Your task to perform on an android device: Show me productivity apps on the Play Store Image 0: 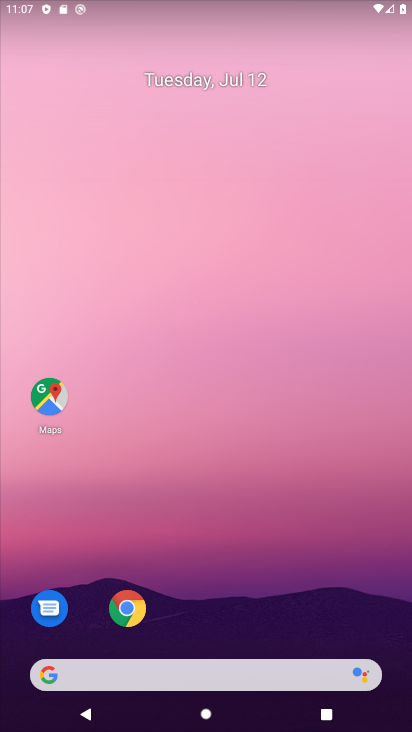
Step 0: drag from (201, 640) to (237, 10)
Your task to perform on an android device: Show me productivity apps on the Play Store Image 1: 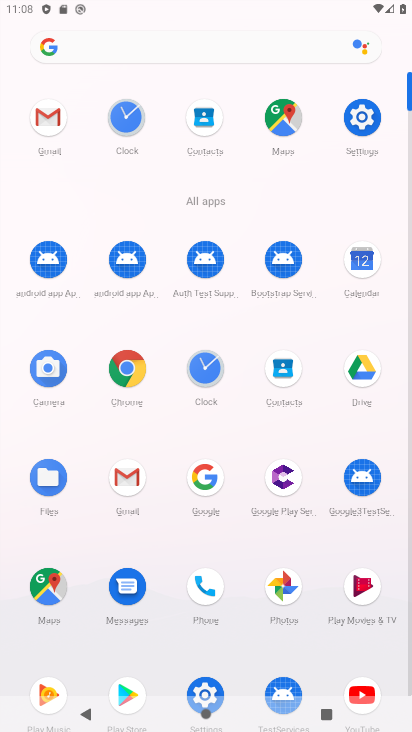
Step 1: click (129, 676)
Your task to perform on an android device: Show me productivity apps on the Play Store Image 2: 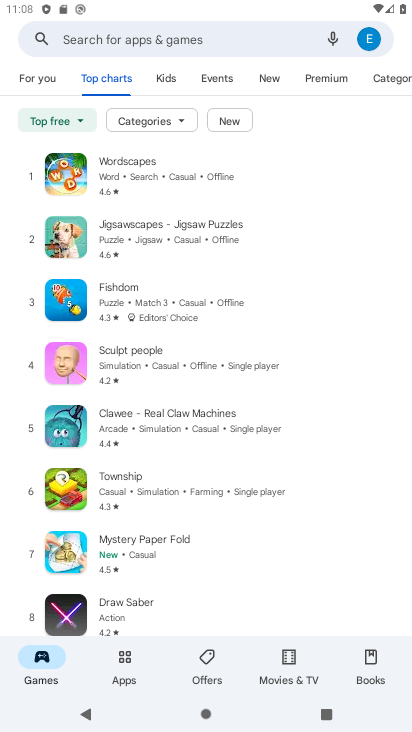
Step 2: click (123, 670)
Your task to perform on an android device: Show me productivity apps on the Play Store Image 3: 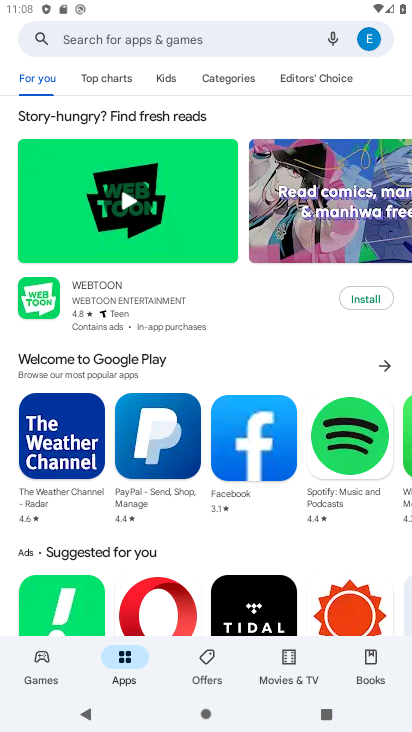
Step 3: click (114, 81)
Your task to perform on an android device: Show me productivity apps on the Play Store Image 4: 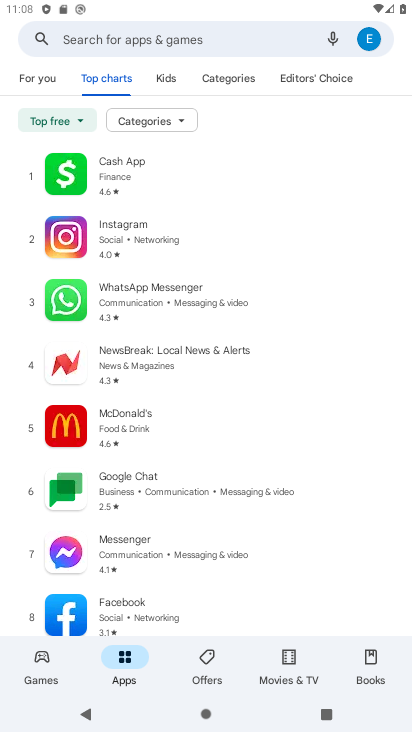
Step 4: task complete